Your task to perform on an android device: Search for pizza restaurants on Maps Image 0: 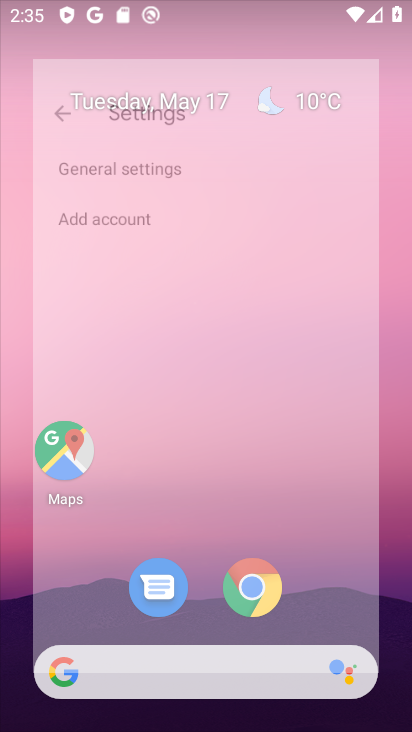
Step 0: drag from (319, 571) to (252, 59)
Your task to perform on an android device: Search for pizza restaurants on Maps Image 1: 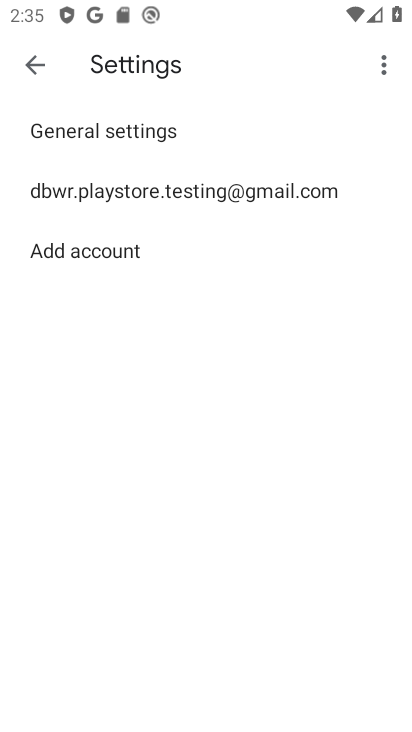
Step 1: press back button
Your task to perform on an android device: Search for pizza restaurants on Maps Image 2: 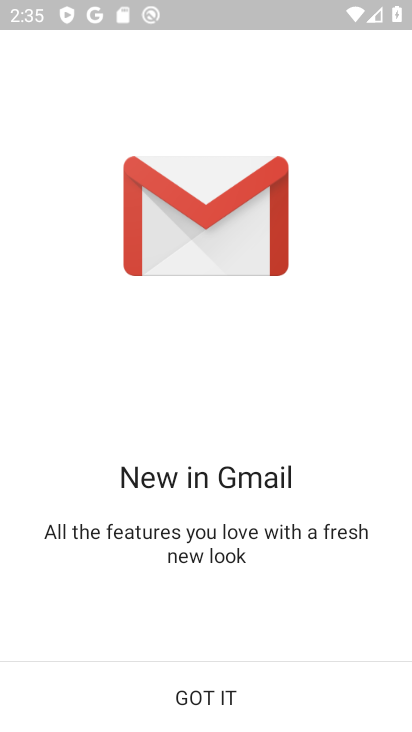
Step 2: press back button
Your task to perform on an android device: Search for pizza restaurants on Maps Image 3: 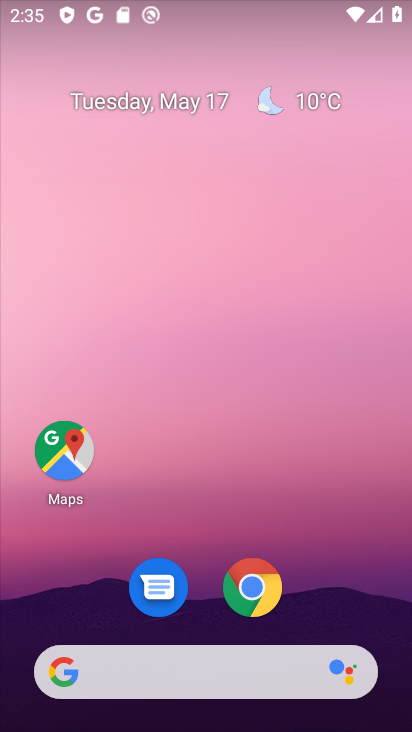
Step 3: click (64, 449)
Your task to perform on an android device: Search for pizza restaurants on Maps Image 4: 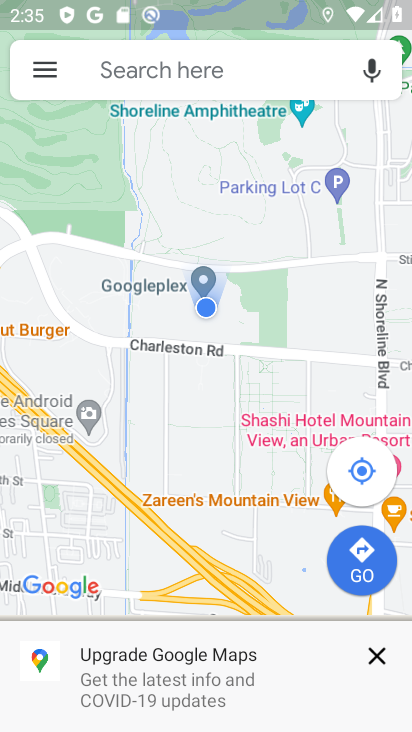
Step 4: click (238, 69)
Your task to perform on an android device: Search for pizza restaurants on Maps Image 5: 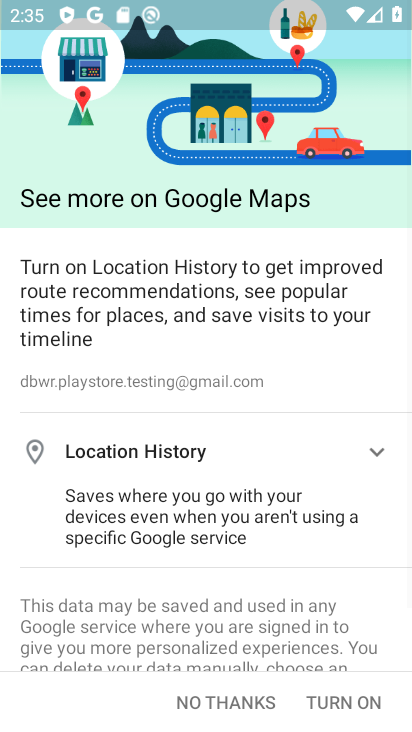
Step 5: click (330, 705)
Your task to perform on an android device: Search for pizza restaurants on Maps Image 6: 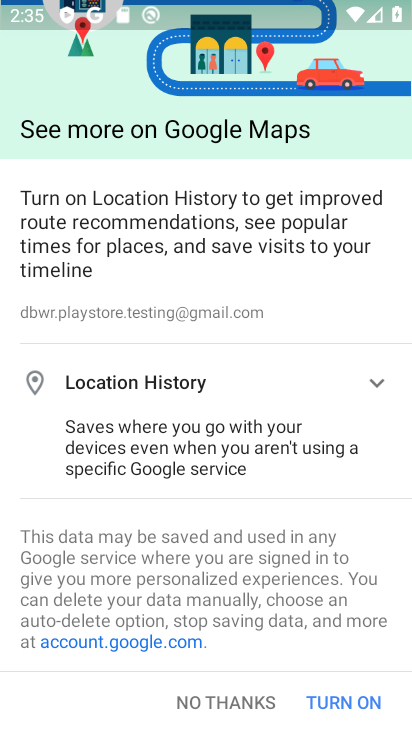
Step 6: click (330, 705)
Your task to perform on an android device: Search for pizza restaurants on Maps Image 7: 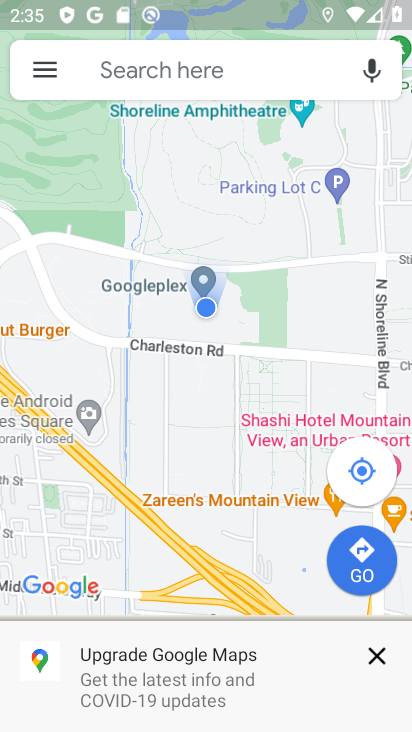
Step 7: click (250, 63)
Your task to perform on an android device: Search for pizza restaurants on Maps Image 8: 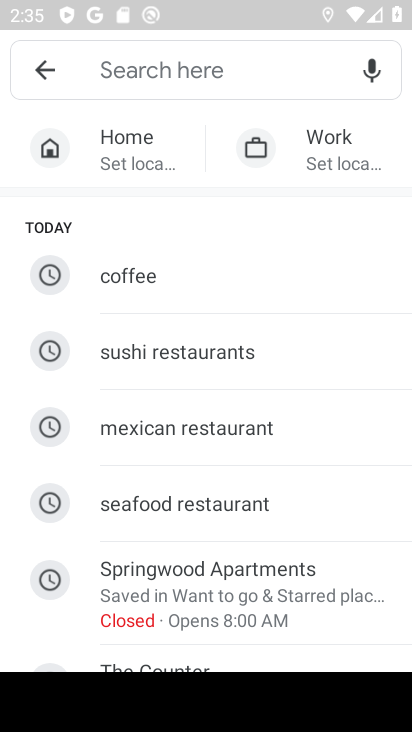
Step 8: drag from (258, 560) to (287, 224)
Your task to perform on an android device: Search for pizza restaurants on Maps Image 9: 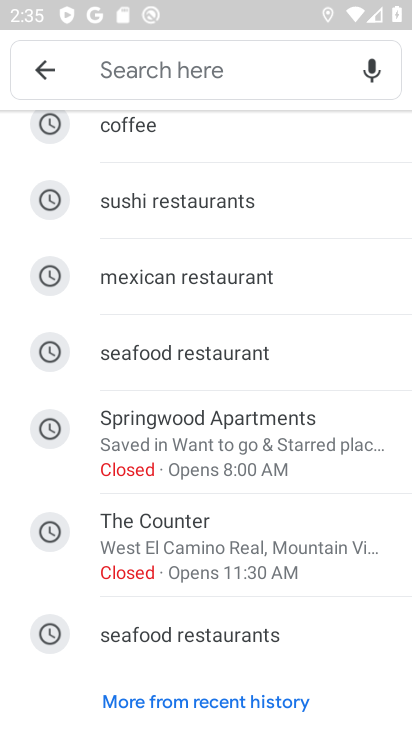
Step 9: click (238, 60)
Your task to perform on an android device: Search for pizza restaurants on Maps Image 10: 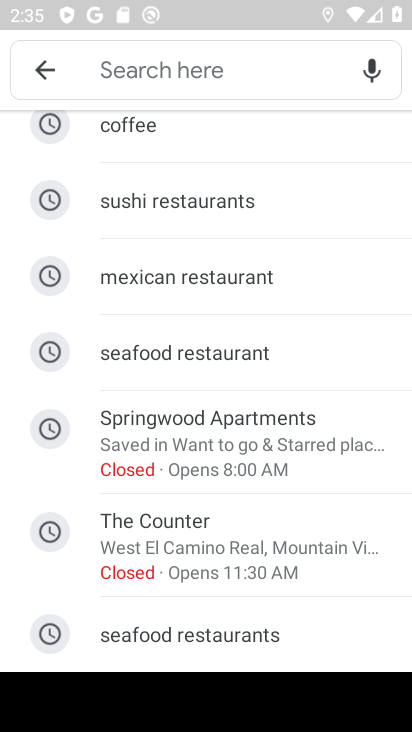
Step 10: type "pizza restaurants "
Your task to perform on an android device: Search for pizza restaurants on Maps Image 11: 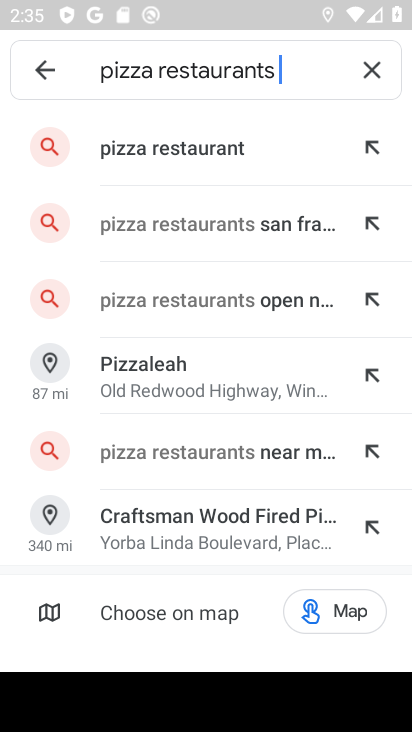
Step 11: click (218, 157)
Your task to perform on an android device: Search for pizza restaurants on Maps Image 12: 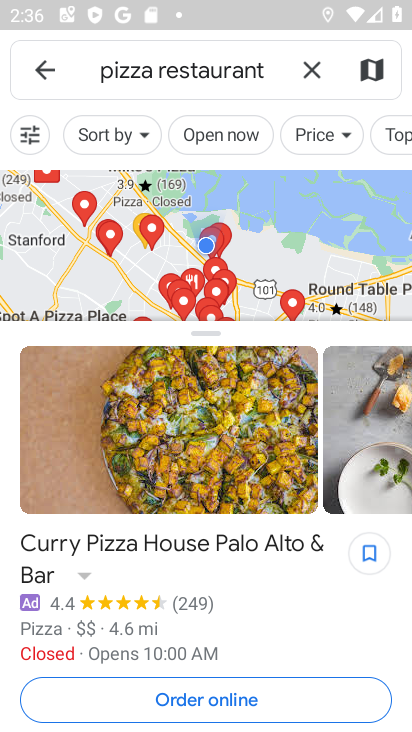
Step 12: task complete